Your task to perform on an android device: Show me the alarms in the clock app Image 0: 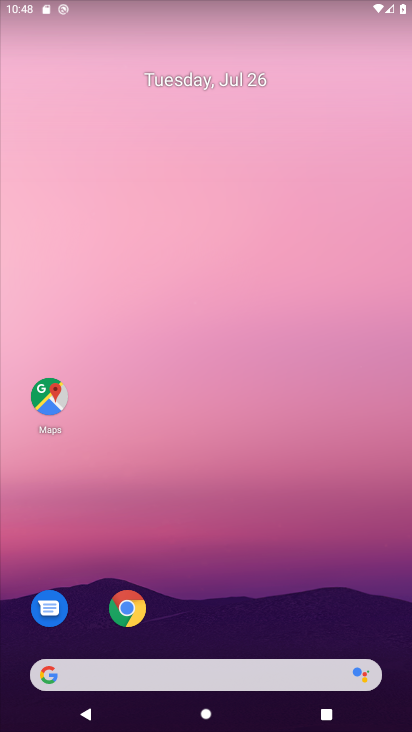
Step 0: drag from (286, 583) to (244, 67)
Your task to perform on an android device: Show me the alarms in the clock app Image 1: 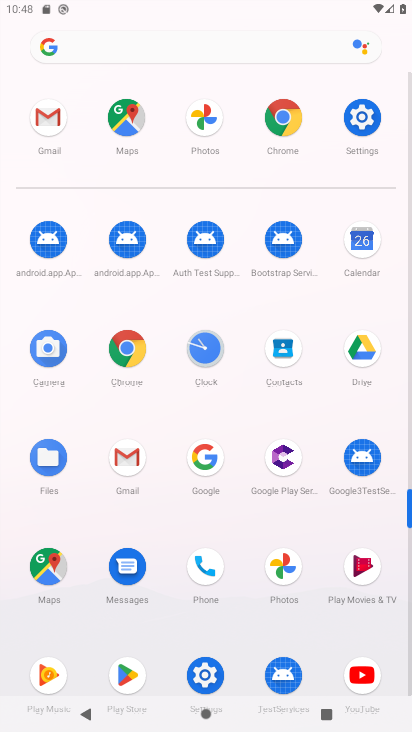
Step 1: click (207, 348)
Your task to perform on an android device: Show me the alarms in the clock app Image 2: 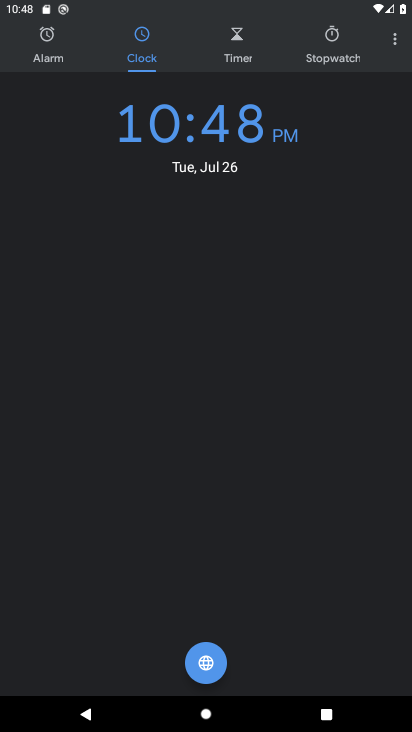
Step 2: click (63, 36)
Your task to perform on an android device: Show me the alarms in the clock app Image 3: 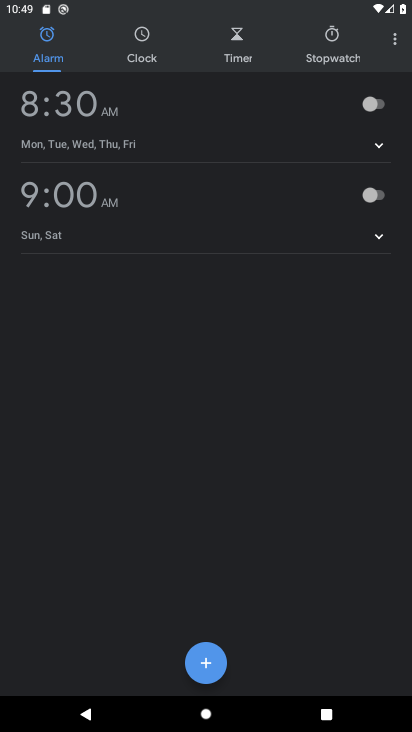
Step 3: task complete